Your task to perform on an android device: check the backup settings in the google photos Image 0: 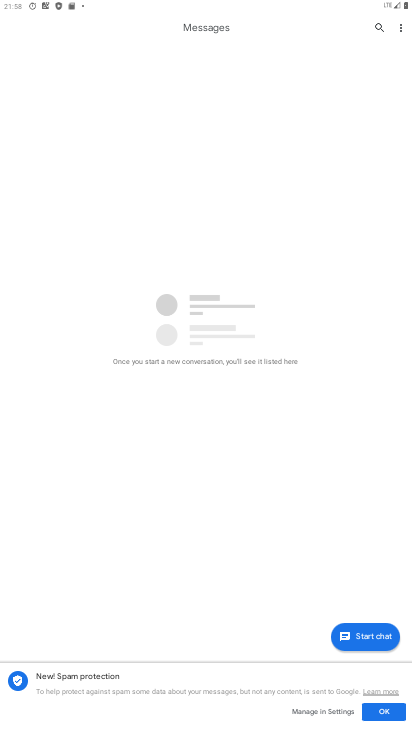
Step 0: drag from (255, 501) to (260, 124)
Your task to perform on an android device: check the backup settings in the google photos Image 1: 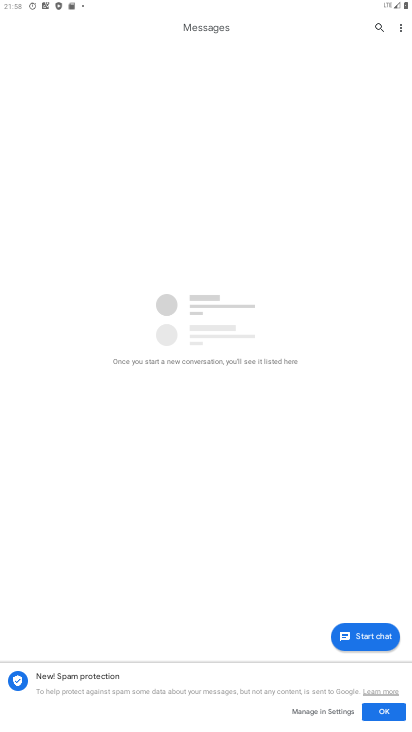
Step 1: click (153, 431)
Your task to perform on an android device: check the backup settings in the google photos Image 2: 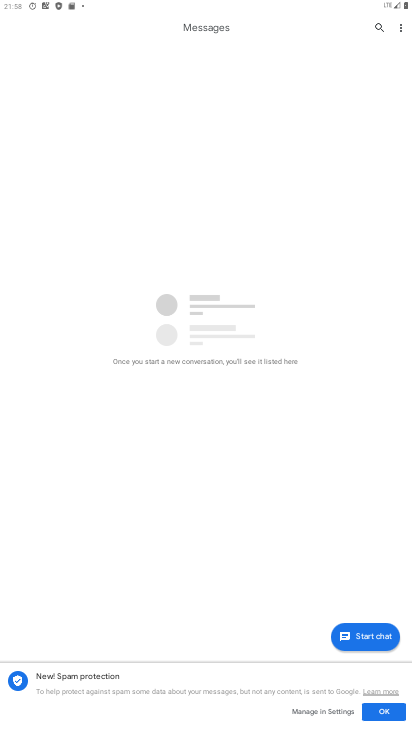
Step 2: drag from (274, 176) to (265, 291)
Your task to perform on an android device: check the backup settings in the google photos Image 3: 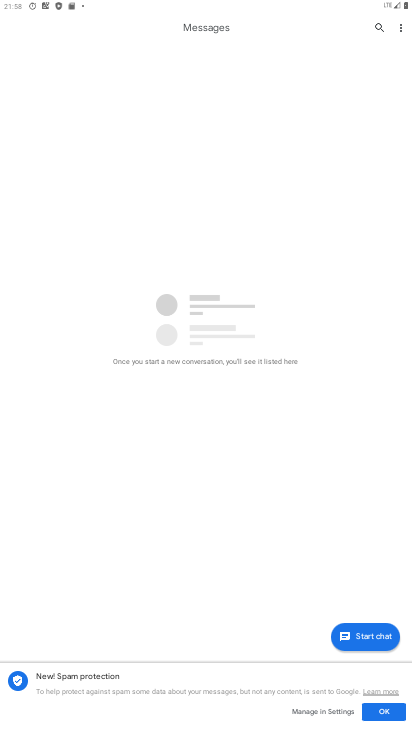
Step 3: click (242, 318)
Your task to perform on an android device: check the backup settings in the google photos Image 4: 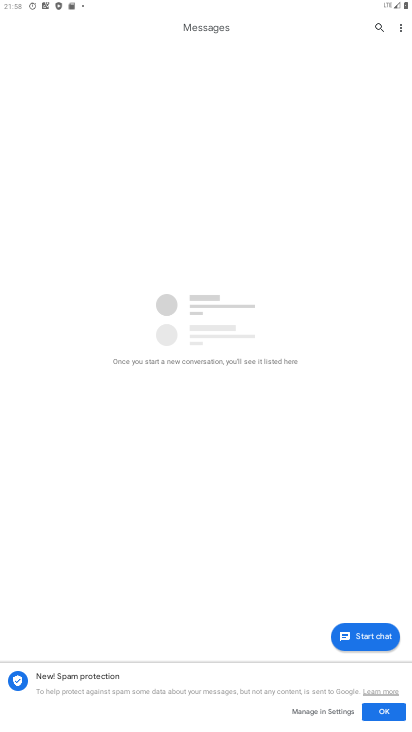
Step 4: click (233, 324)
Your task to perform on an android device: check the backup settings in the google photos Image 5: 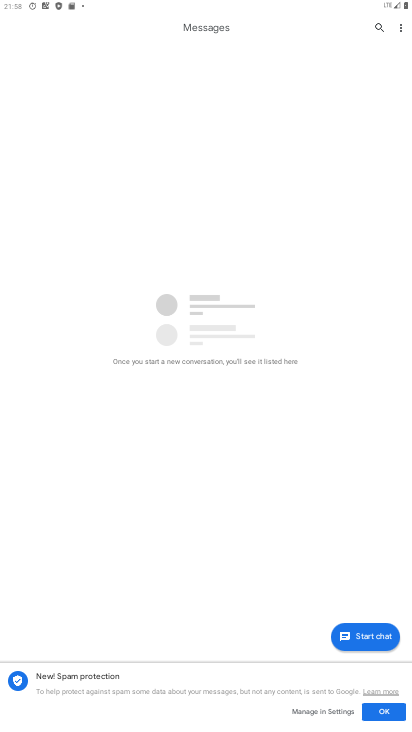
Step 5: click (231, 323)
Your task to perform on an android device: check the backup settings in the google photos Image 6: 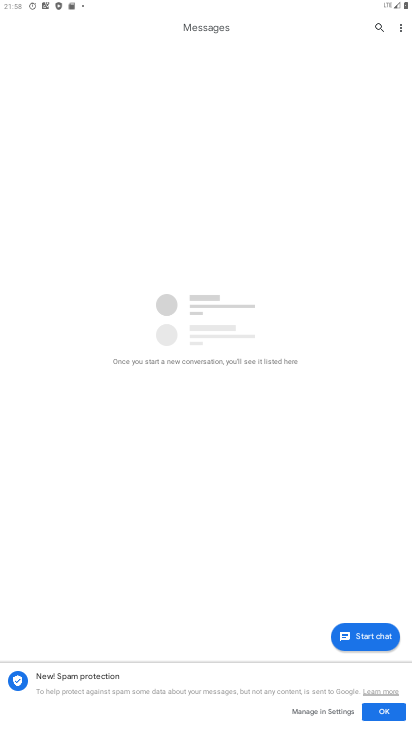
Step 6: click (400, 29)
Your task to perform on an android device: check the backup settings in the google photos Image 7: 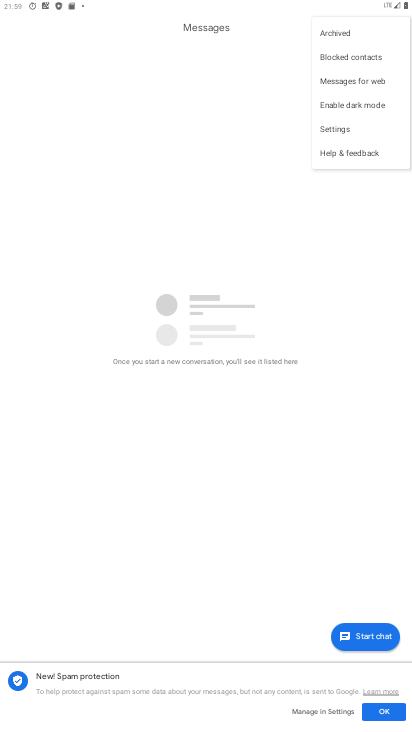
Step 7: click (308, 413)
Your task to perform on an android device: check the backup settings in the google photos Image 8: 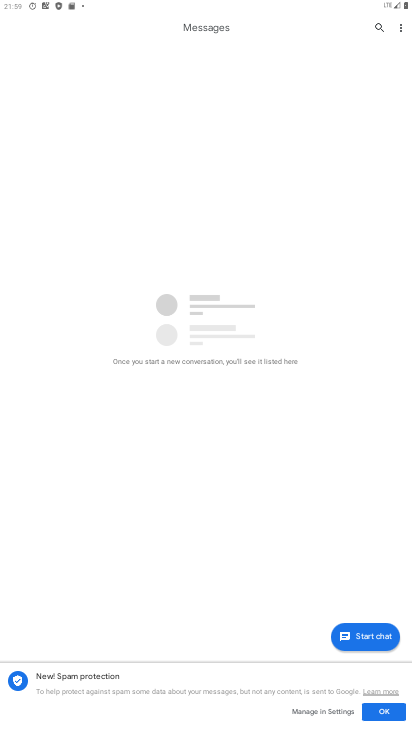
Step 8: press home button
Your task to perform on an android device: check the backup settings in the google photos Image 9: 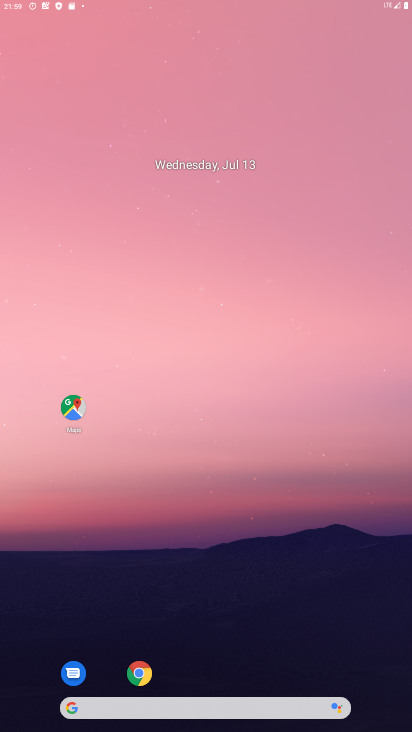
Step 9: drag from (253, 598) to (278, 217)
Your task to perform on an android device: check the backup settings in the google photos Image 10: 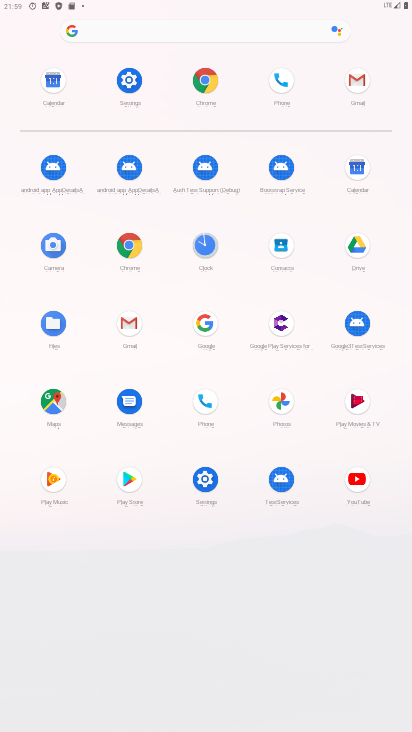
Step 10: drag from (207, 544) to (211, 275)
Your task to perform on an android device: check the backup settings in the google photos Image 11: 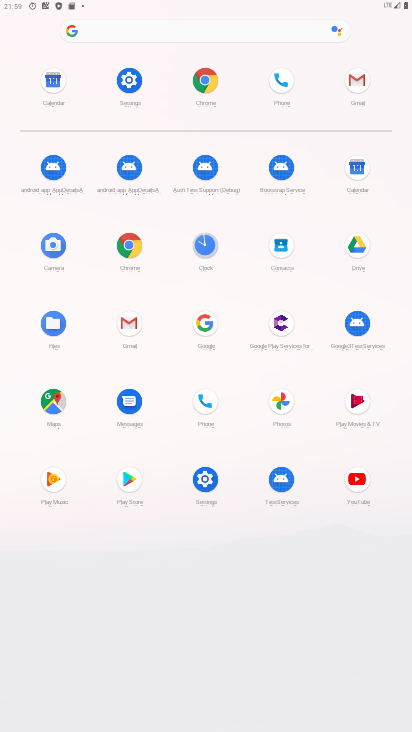
Step 11: click (283, 400)
Your task to perform on an android device: check the backup settings in the google photos Image 12: 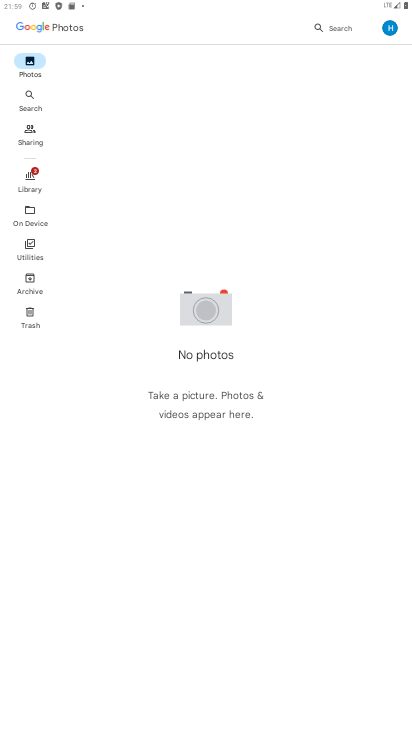
Step 12: click (391, 21)
Your task to perform on an android device: check the backup settings in the google photos Image 13: 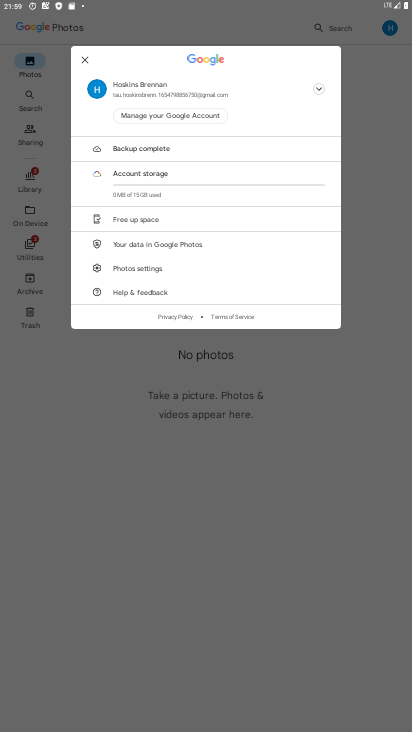
Step 13: click (133, 271)
Your task to perform on an android device: check the backup settings in the google photos Image 14: 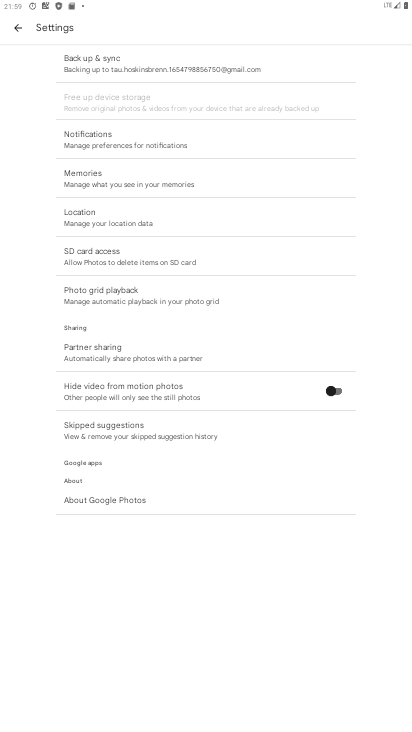
Step 14: drag from (227, 541) to (294, 125)
Your task to perform on an android device: check the backup settings in the google photos Image 15: 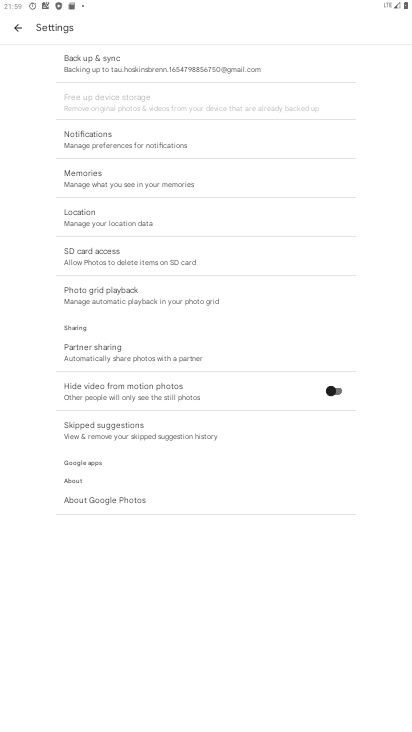
Step 15: drag from (262, 76) to (191, 587)
Your task to perform on an android device: check the backup settings in the google photos Image 16: 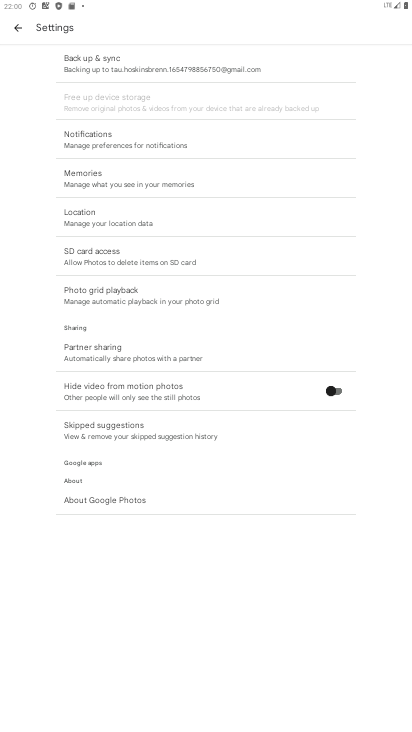
Step 16: click (133, 66)
Your task to perform on an android device: check the backup settings in the google photos Image 17: 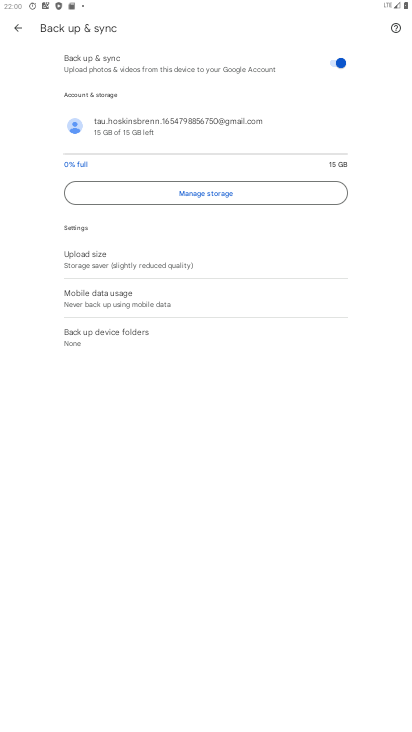
Step 17: task complete